Your task to perform on an android device: Open Yahoo.com Image 0: 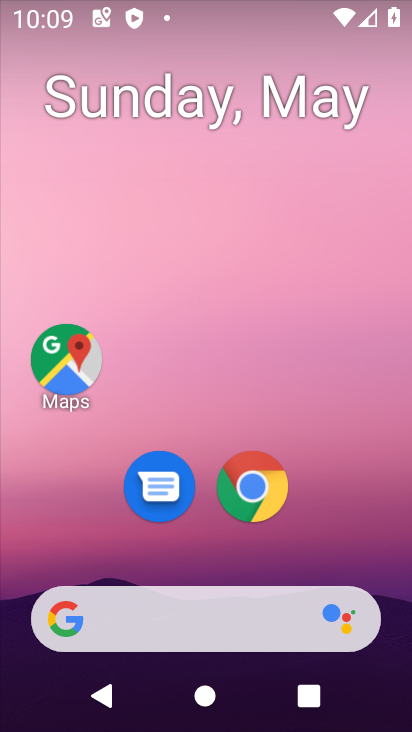
Step 0: click (253, 487)
Your task to perform on an android device: Open Yahoo.com Image 1: 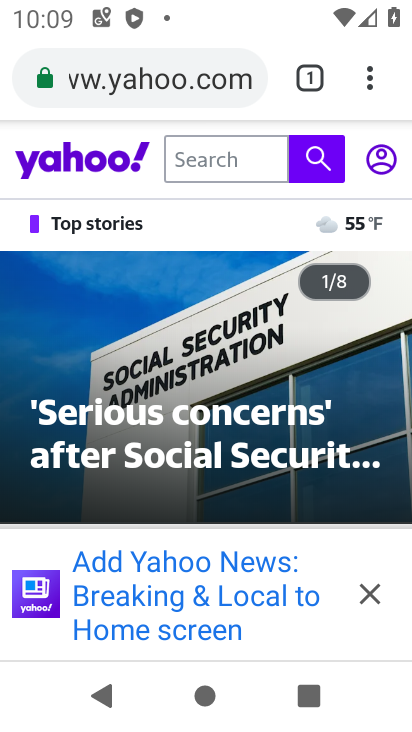
Step 1: click (216, 84)
Your task to perform on an android device: Open Yahoo.com Image 2: 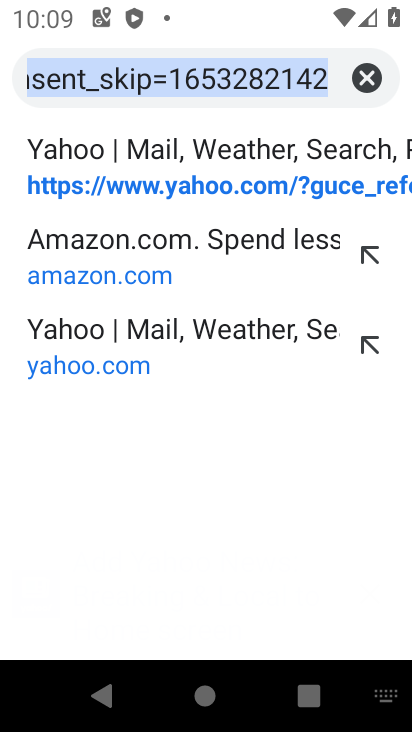
Step 2: click (314, 165)
Your task to perform on an android device: Open Yahoo.com Image 3: 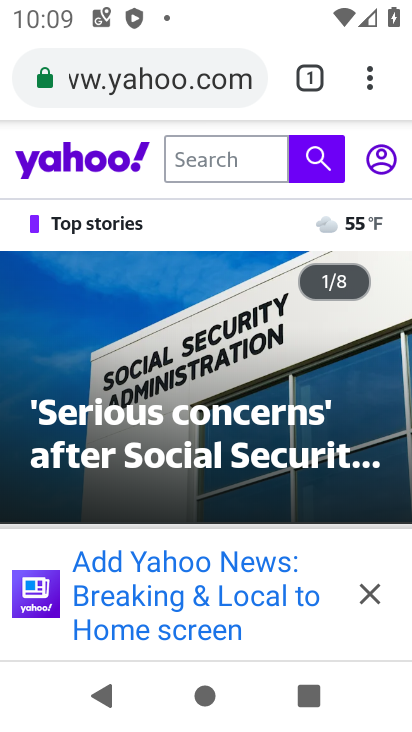
Step 3: task complete